Your task to perform on an android device: Install the eBay app Image 0: 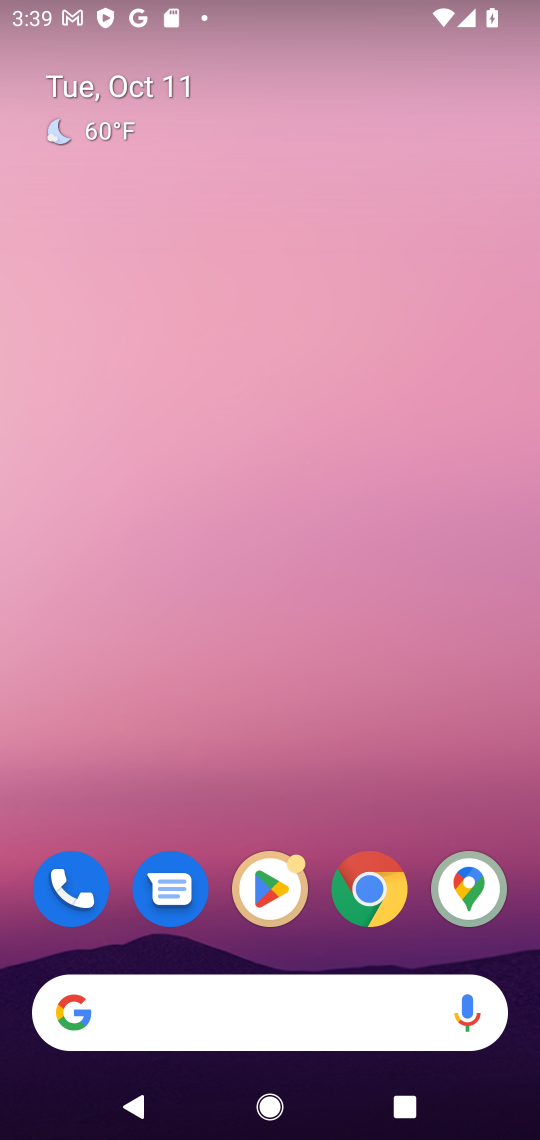
Step 0: drag from (310, 752) to (320, 359)
Your task to perform on an android device: Install the eBay app Image 1: 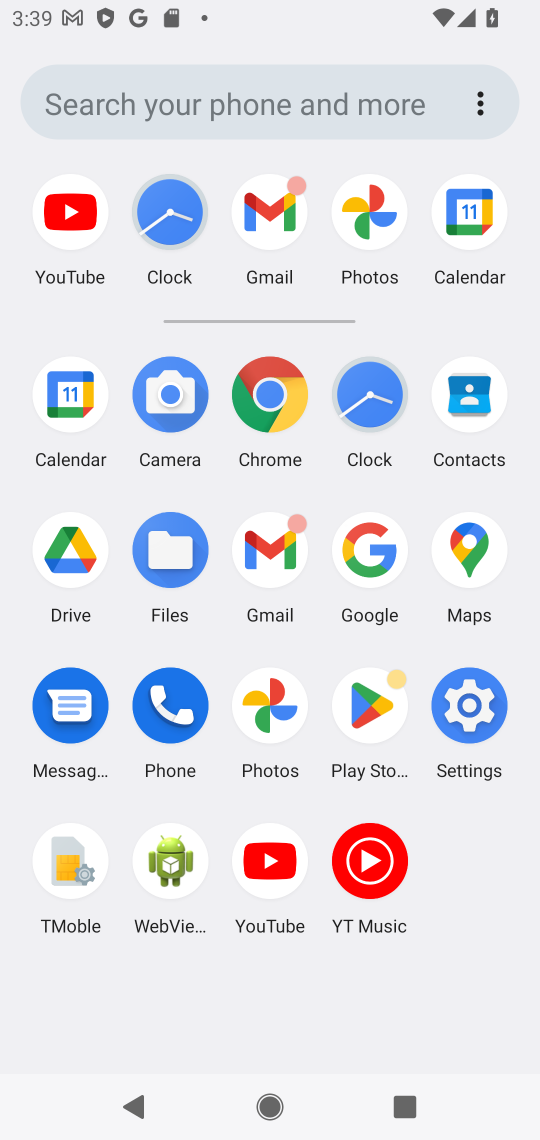
Step 1: click (380, 694)
Your task to perform on an android device: Install the eBay app Image 2: 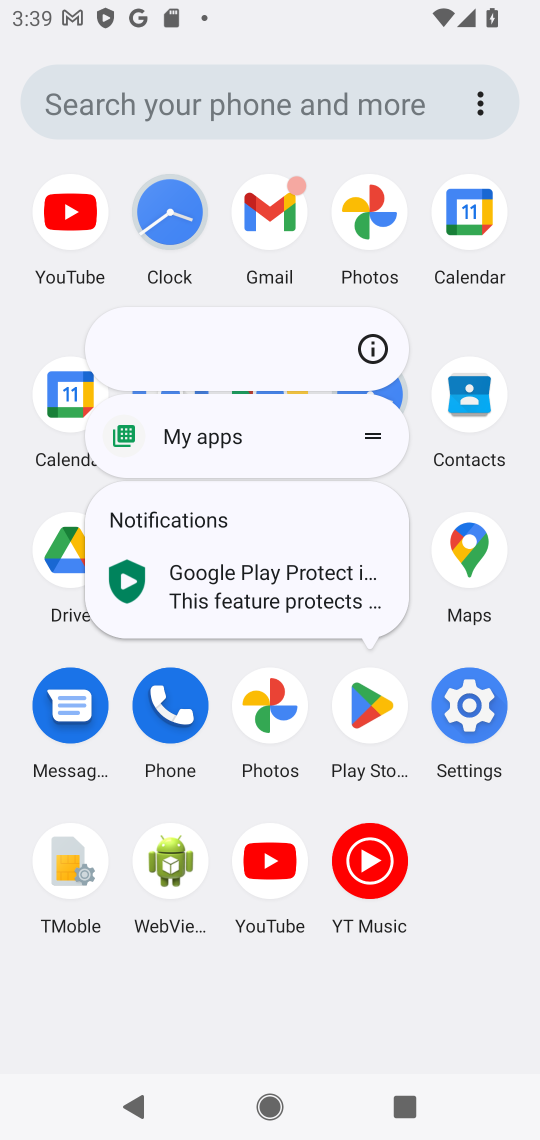
Step 2: click (369, 704)
Your task to perform on an android device: Install the eBay app Image 3: 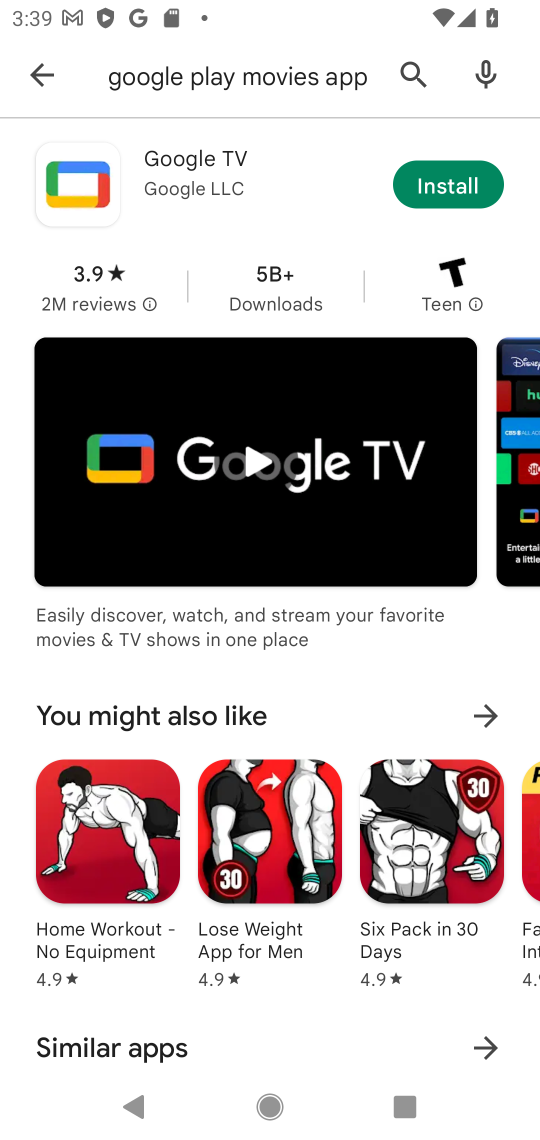
Step 3: click (45, 63)
Your task to perform on an android device: Install the eBay app Image 4: 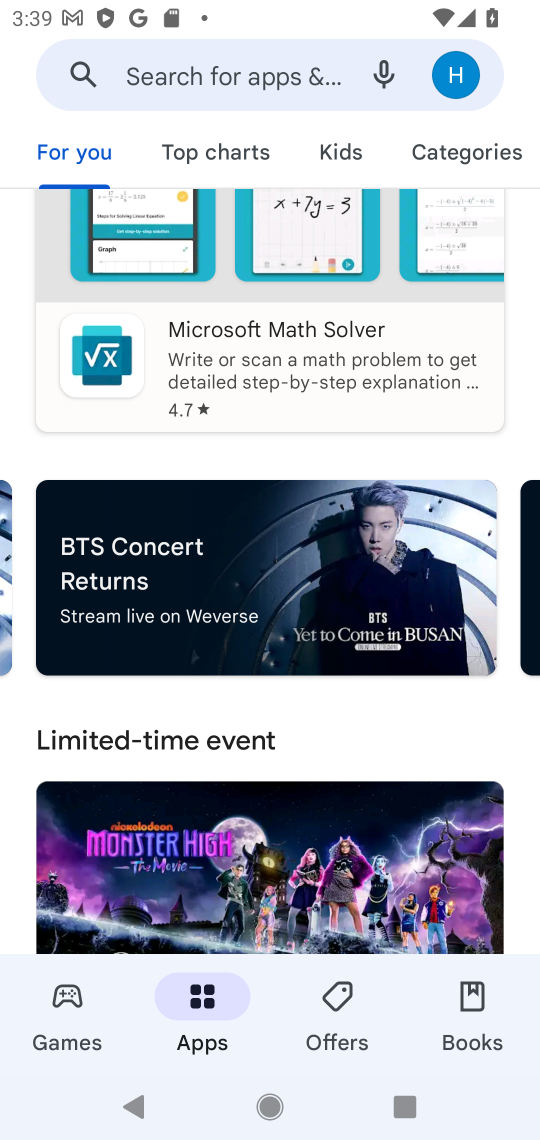
Step 4: click (206, 60)
Your task to perform on an android device: Install the eBay app Image 5: 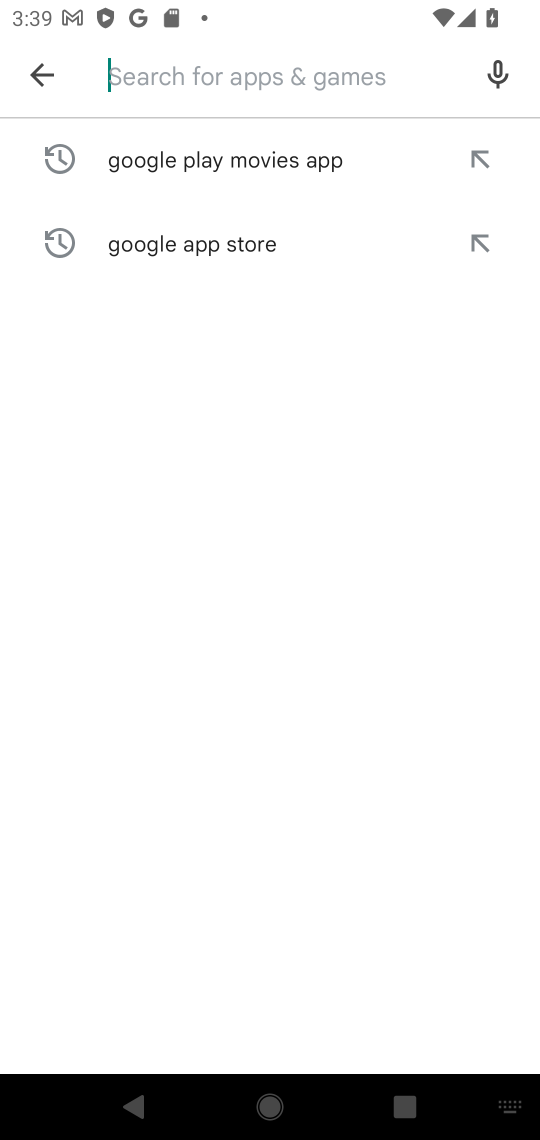
Step 5: click (205, 61)
Your task to perform on an android device: Install the eBay app Image 6: 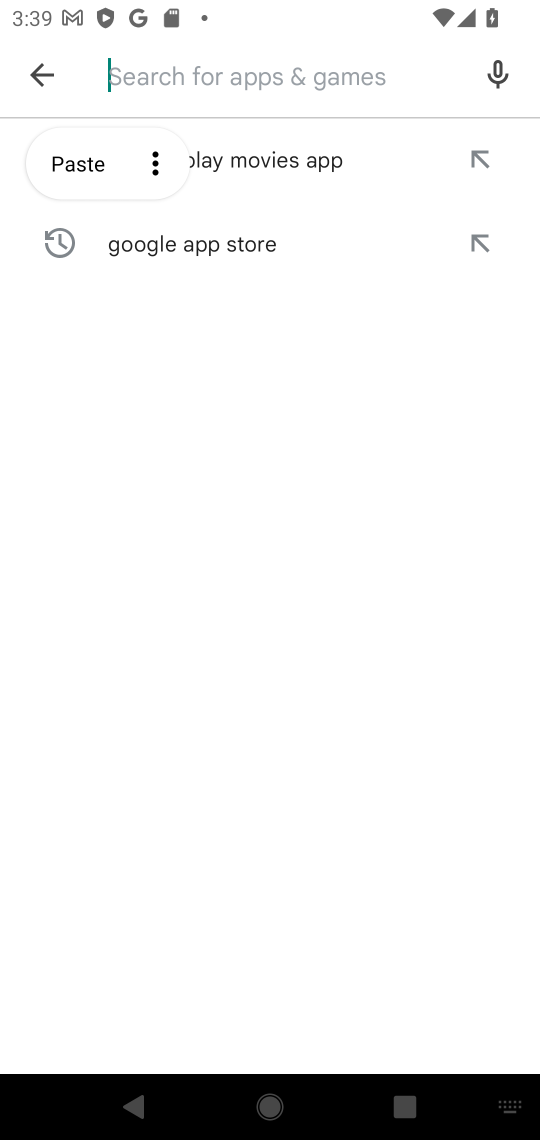
Step 6: type "ebay "
Your task to perform on an android device: Install the eBay app Image 7: 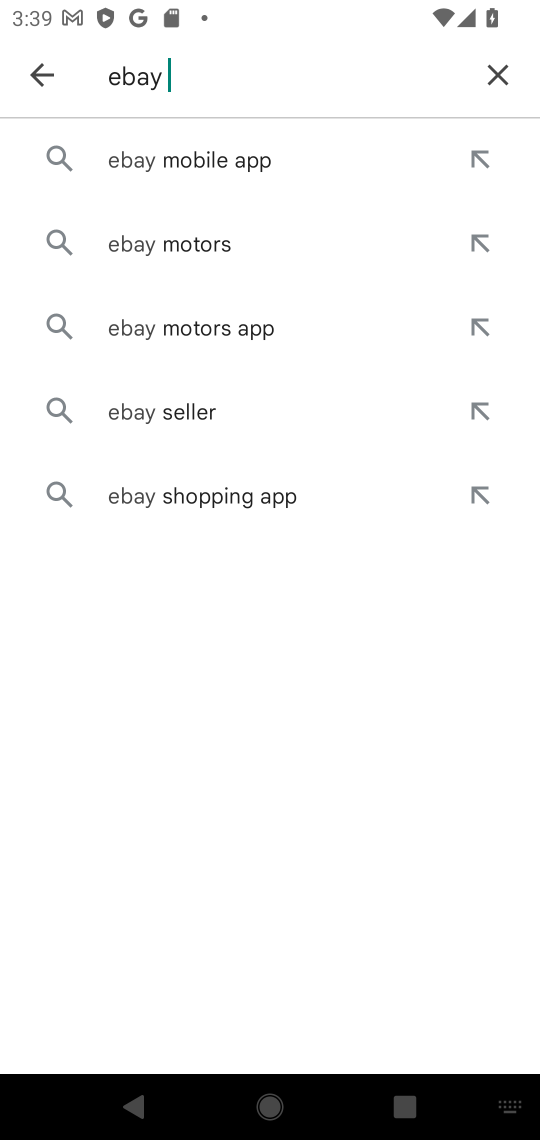
Step 7: click (233, 152)
Your task to perform on an android device: Install the eBay app Image 8: 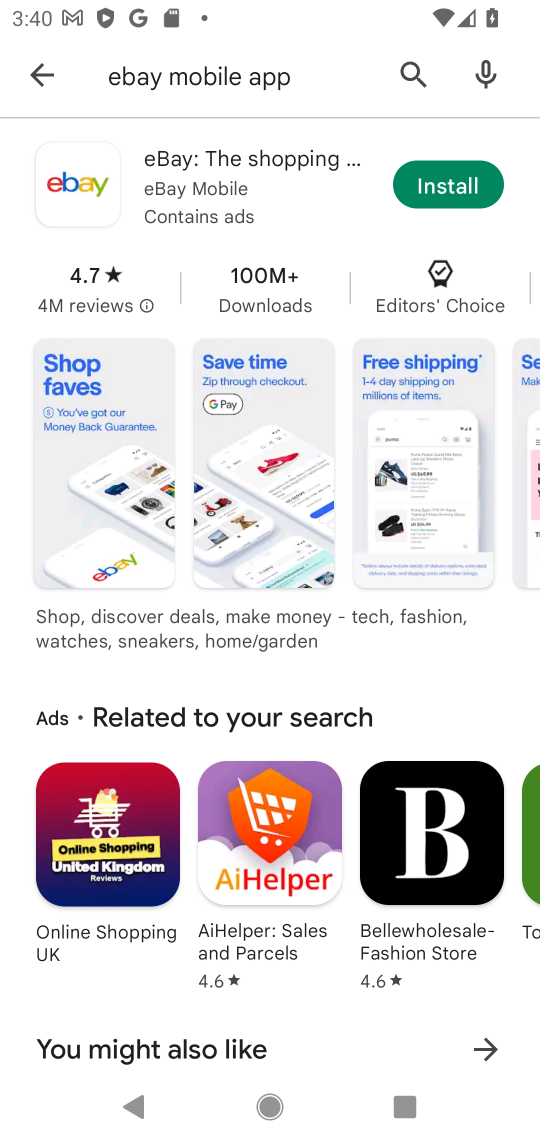
Step 8: click (433, 178)
Your task to perform on an android device: Install the eBay app Image 9: 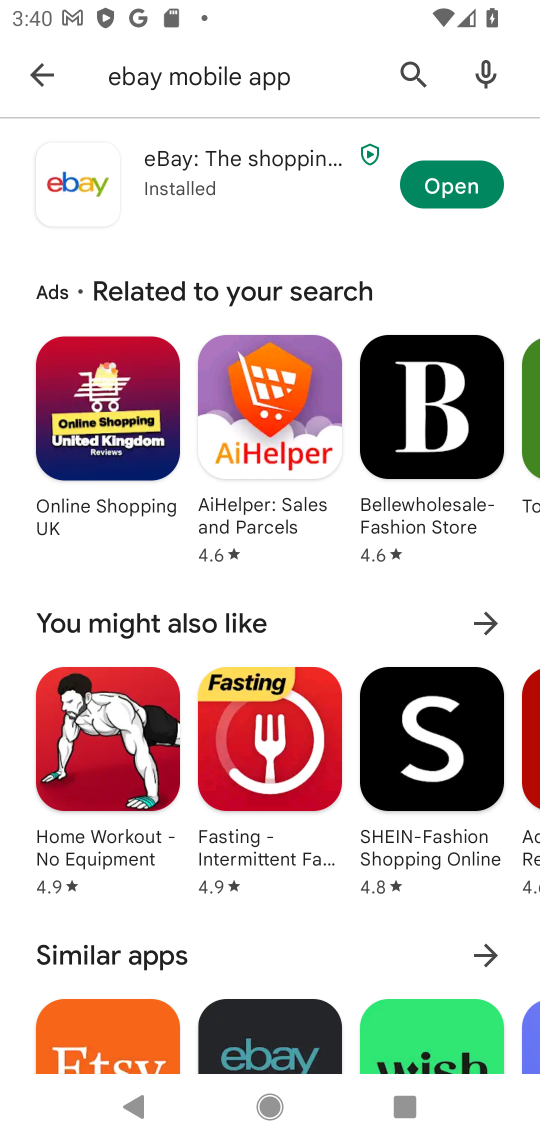
Step 9: click (433, 178)
Your task to perform on an android device: Install the eBay app Image 10: 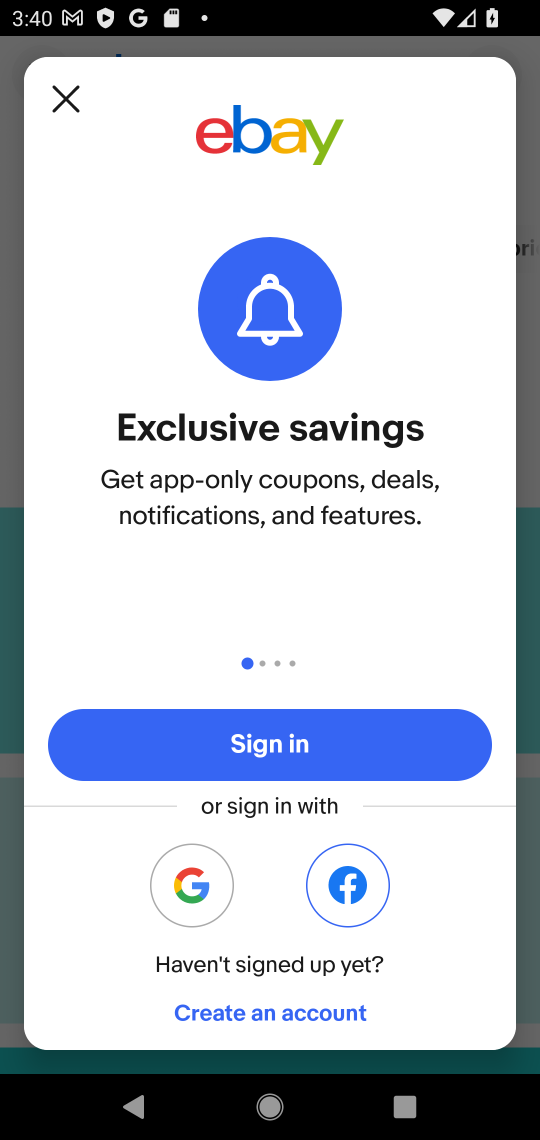
Step 10: click (60, 100)
Your task to perform on an android device: Install the eBay app Image 11: 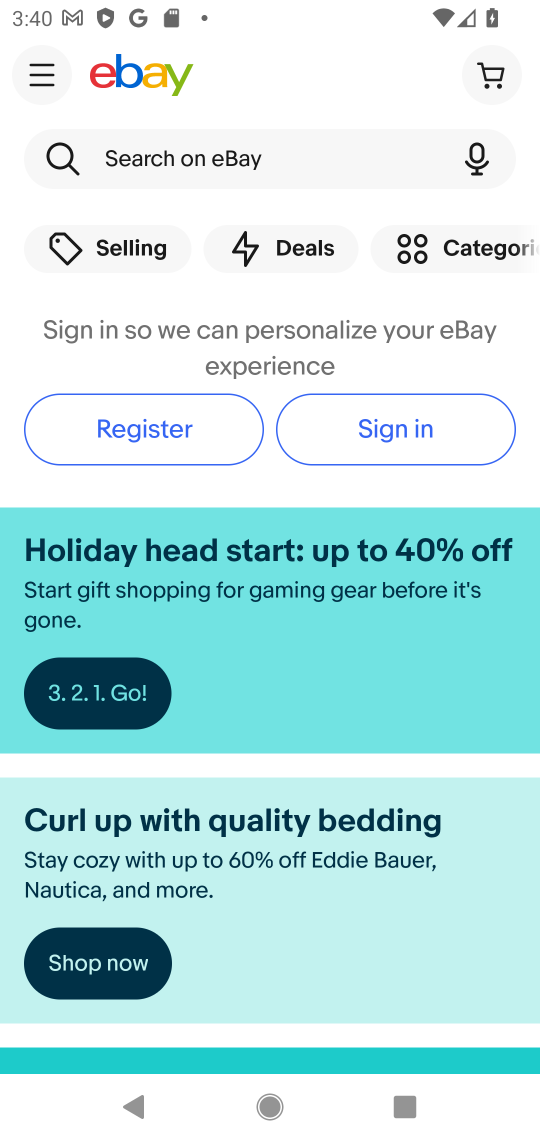
Step 11: task complete